Your task to perform on an android device: turn on the 12-hour format for clock Image 0: 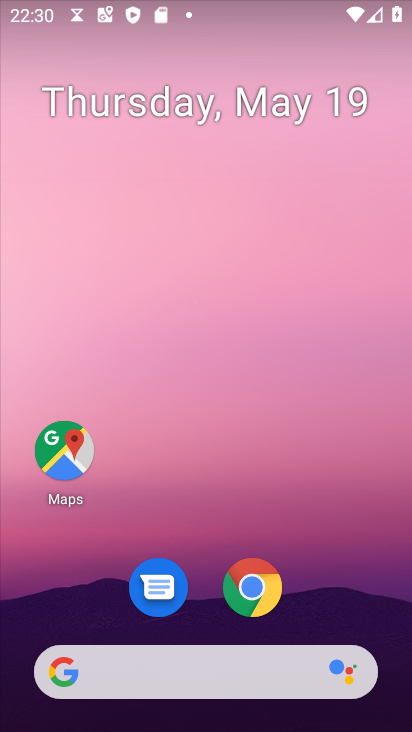
Step 0: click (404, 654)
Your task to perform on an android device: turn on the 12-hour format for clock Image 1: 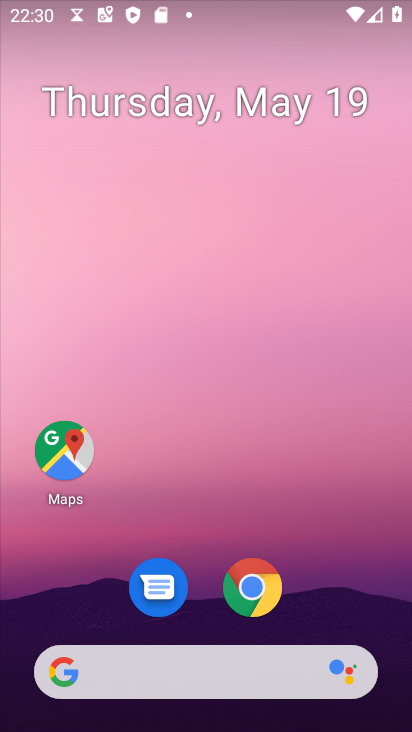
Step 1: drag from (177, 667) to (216, 135)
Your task to perform on an android device: turn on the 12-hour format for clock Image 2: 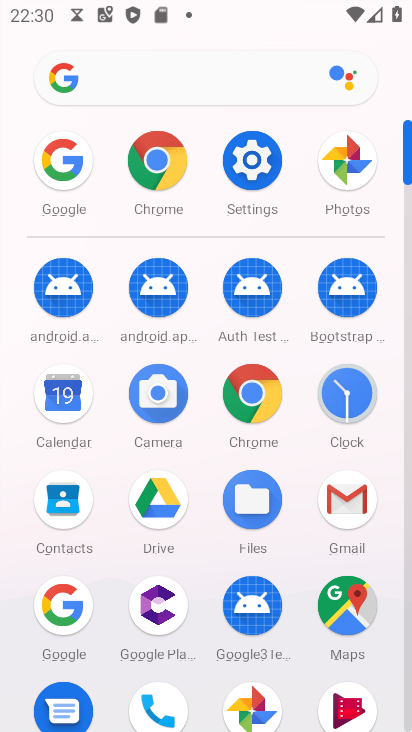
Step 2: click (247, 169)
Your task to perform on an android device: turn on the 12-hour format for clock Image 3: 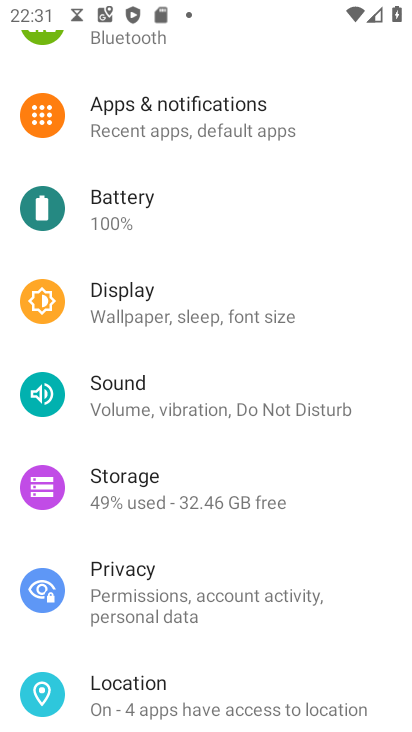
Step 3: drag from (179, 569) to (0, 412)
Your task to perform on an android device: turn on the 12-hour format for clock Image 4: 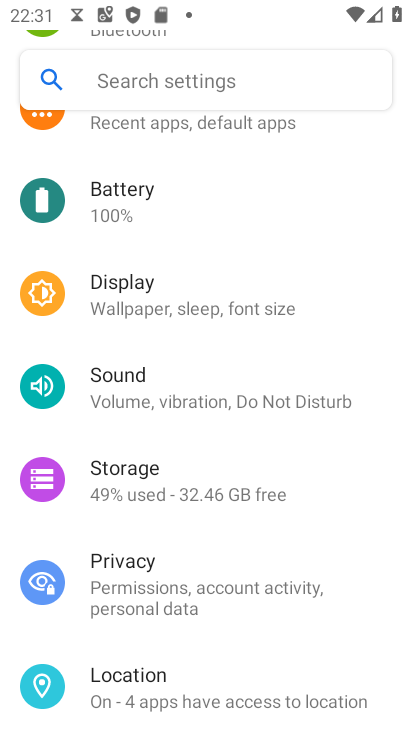
Step 4: drag from (258, 588) to (310, 116)
Your task to perform on an android device: turn on the 12-hour format for clock Image 5: 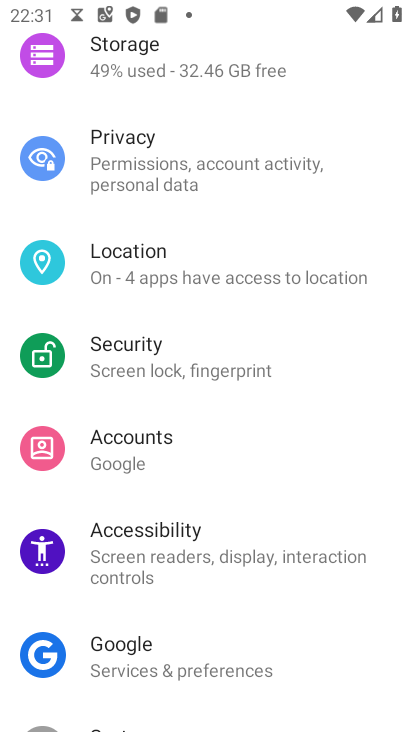
Step 5: drag from (291, 612) to (316, 176)
Your task to perform on an android device: turn on the 12-hour format for clock Image 6: 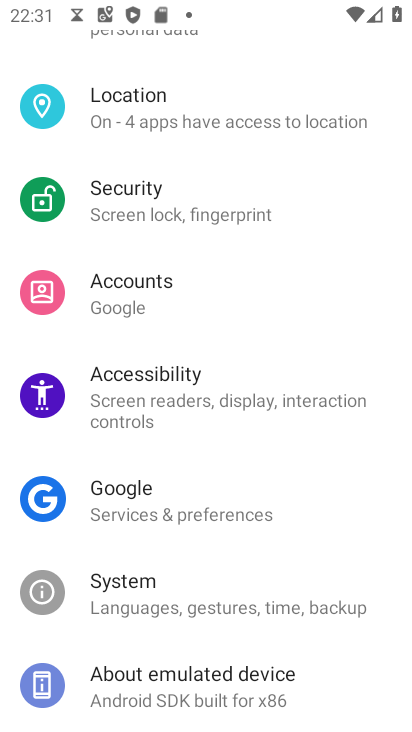
Step 6: click (137, 610)
Your task to perform on an android device: turn on the 12-hour format for clock Image 7: 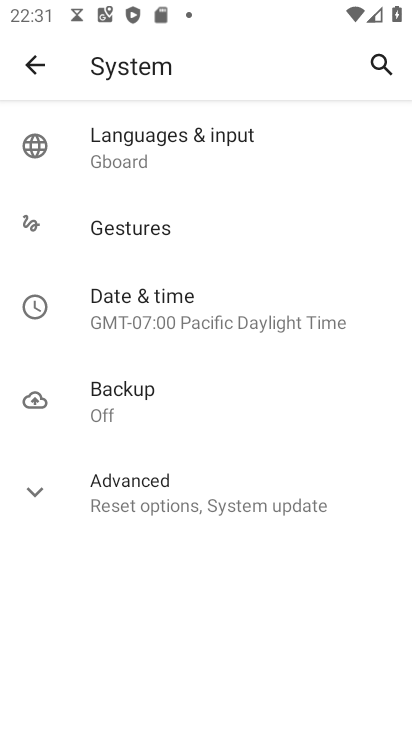
Step 7: click (204, 313)
Your task to perform on an android device: turn on the 12-hour format for clock Image 8: 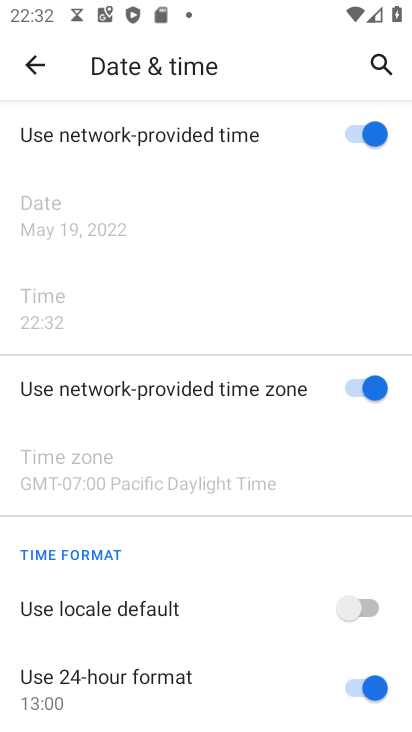
Step 8: click (369, 676)
Your task to perform on an android device: turn on the 12-hour format for clock Image 9: 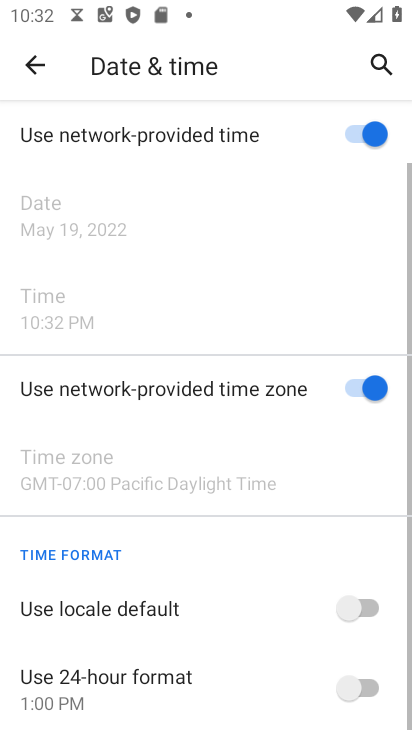
Step 9: click (374, 608)
Your task to perform on an android device: turn on the 12-hour format for clock Image 10: 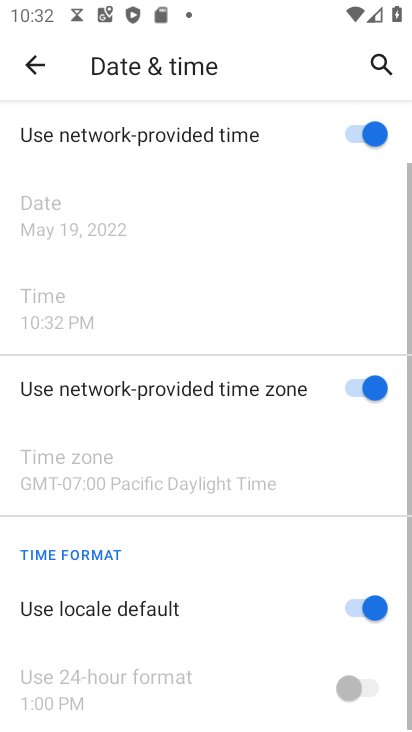
Step 10: task complete